Your task to perform on an android device: Open display settings Image 0: 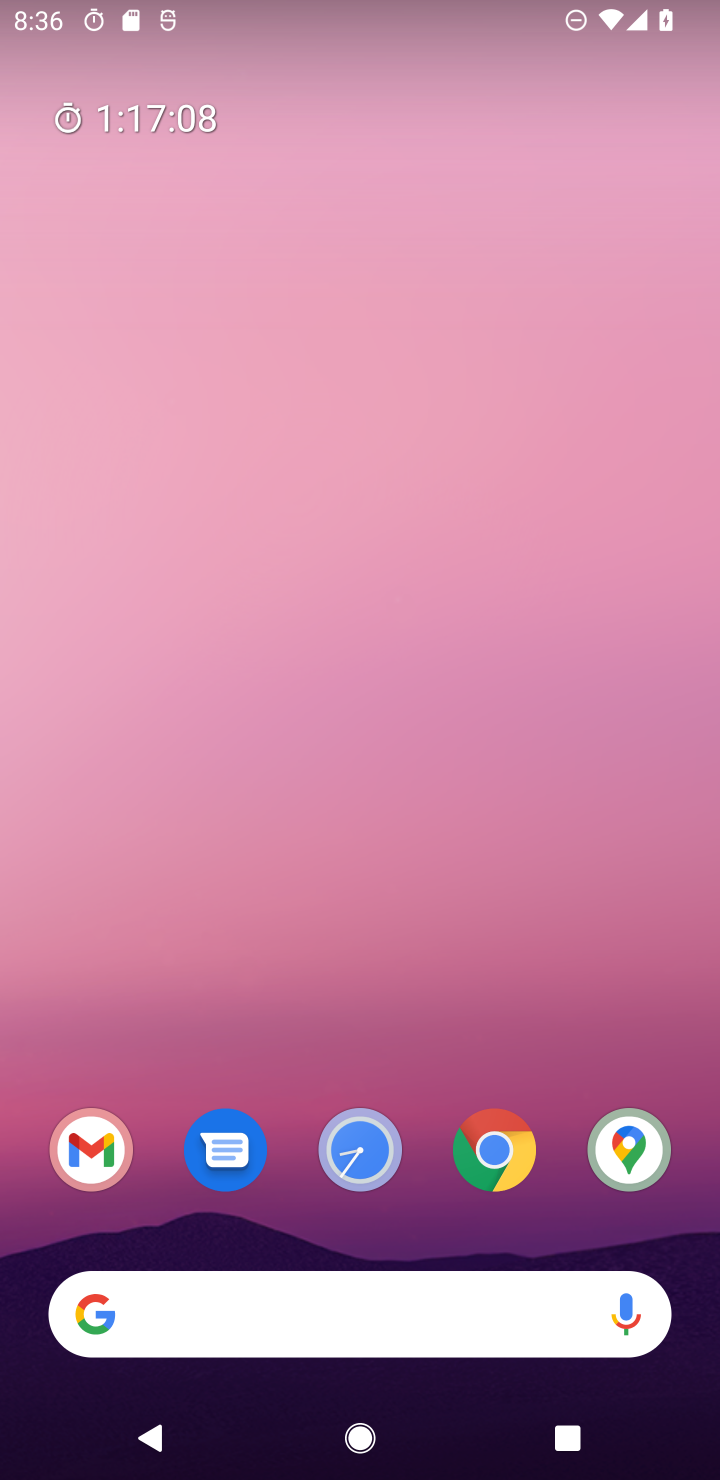
Step 0: drag from (383, 1187) to (546, 22)
Your task to perform on an android device: Open display settings Image 1: 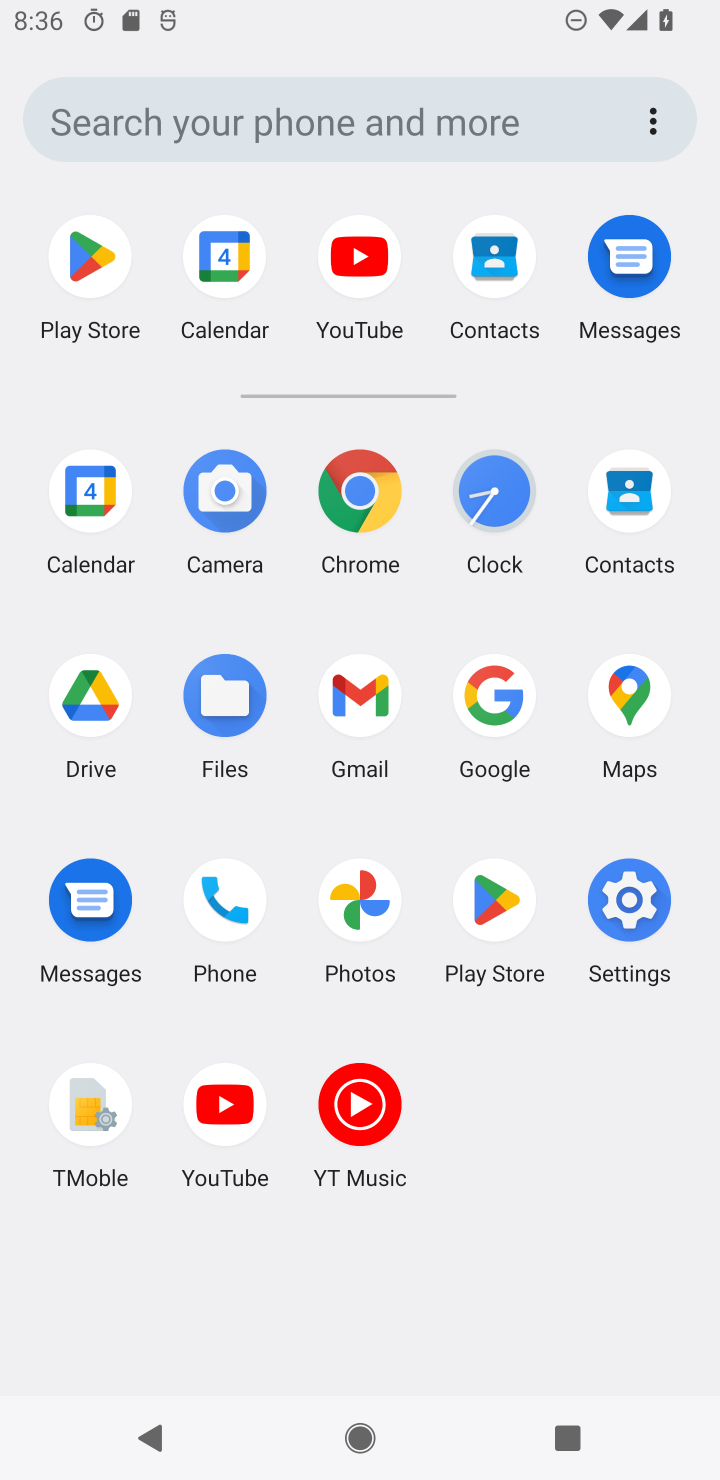
Step 1: click (612, 893)
Your task to perform on an android device: Open display settings Image 2: 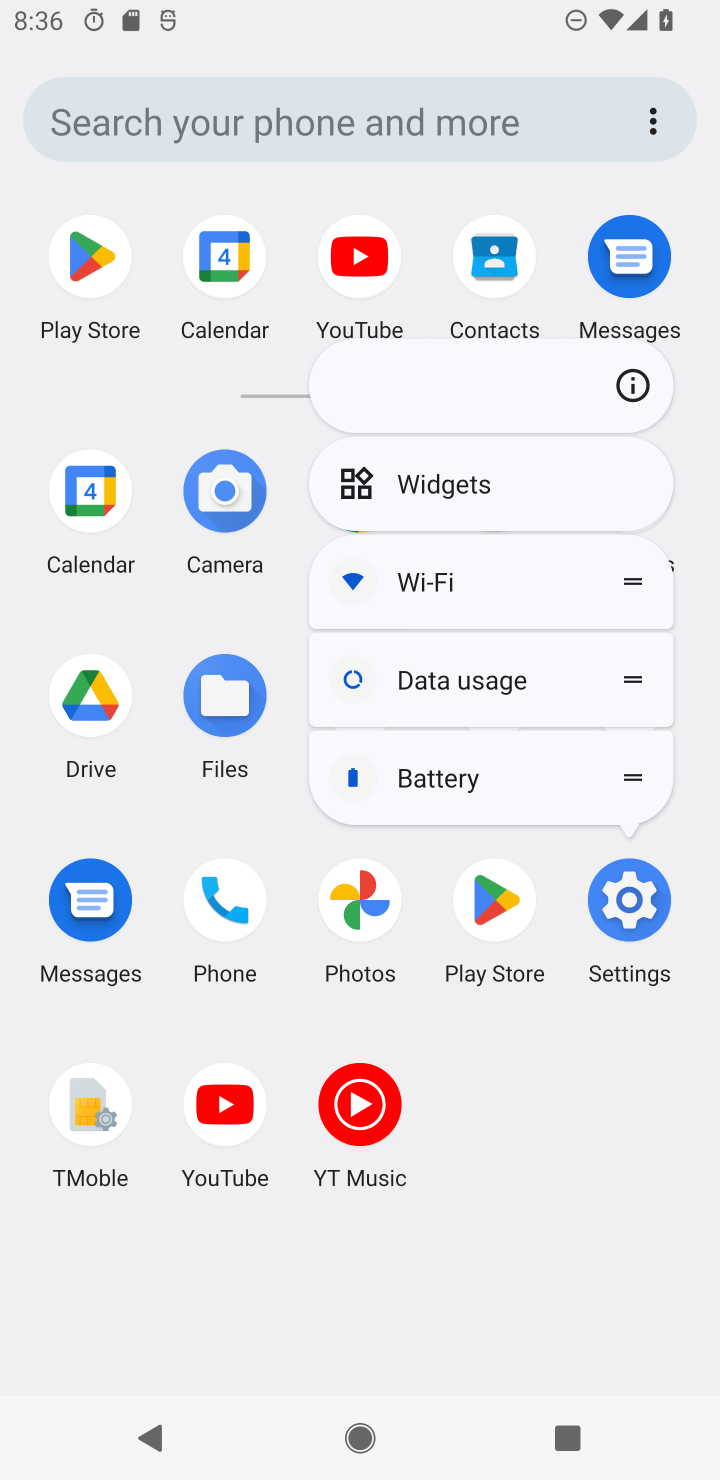
Step 2: click (612, 893)
Your task to perform on an android device: Open display settings Image 3: 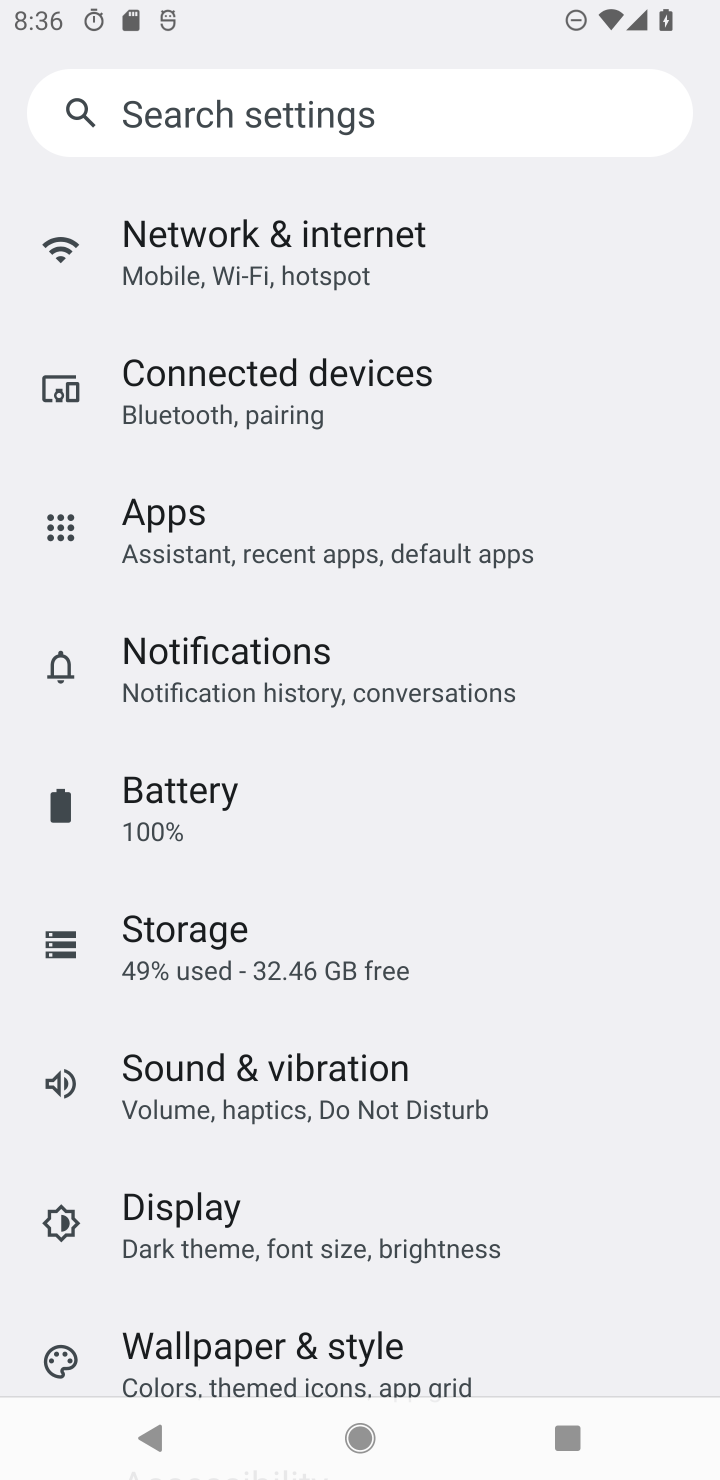
Step 3: drag from (229, 478) to (318, 135)
Your task to perform on an android device: Open display settings Image 4: 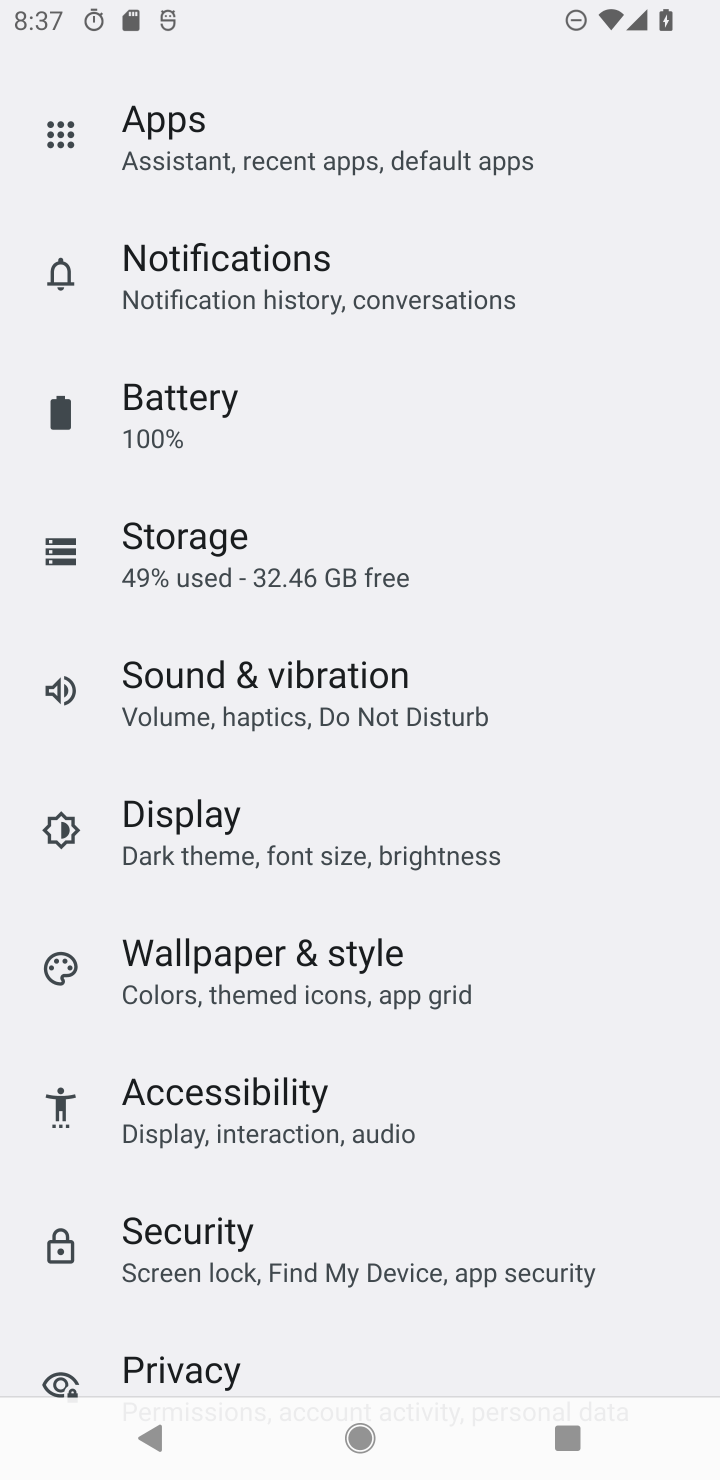
Step 4: drag from (255, 1331) to (321, 876)
Your task to perform on an android device: Open display settings Image 5: 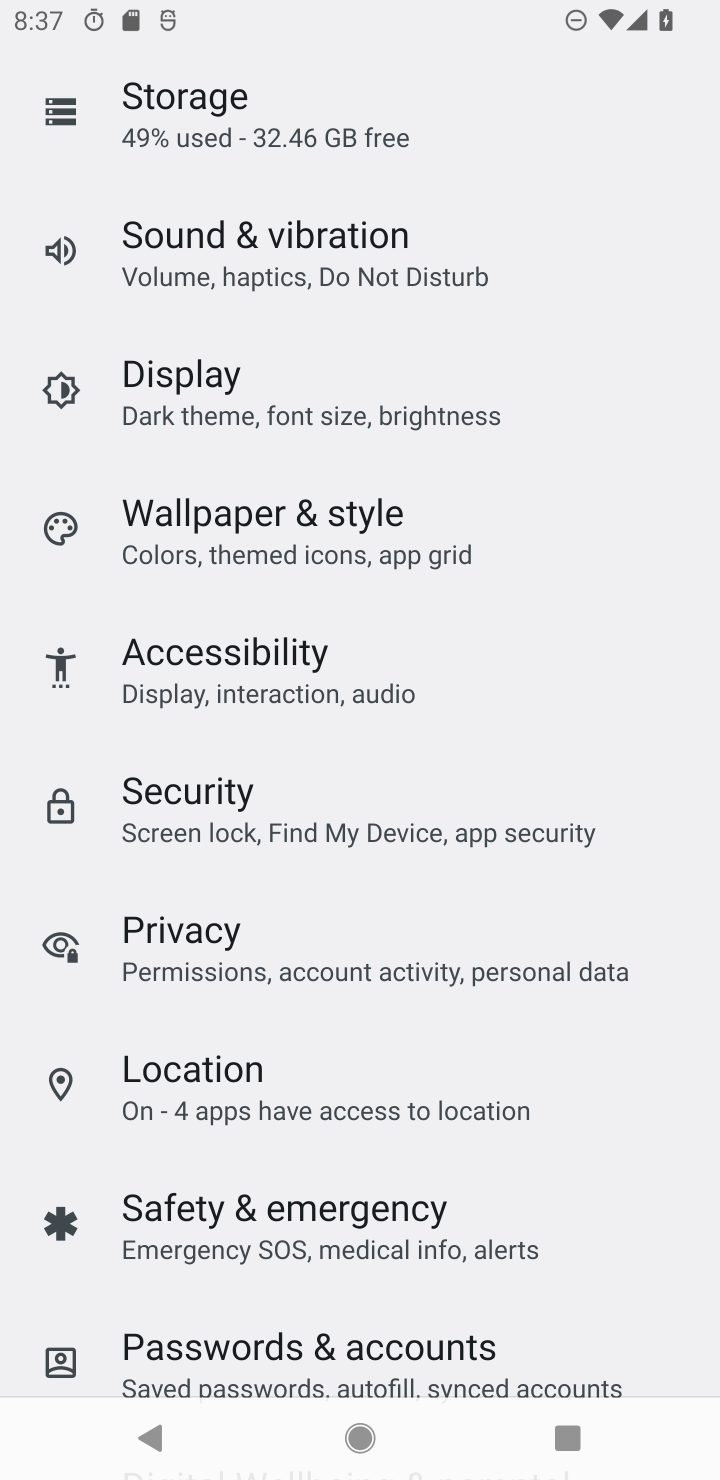
Step 5: click (281, 390)
Your task to perform on an android device: Open display settings Image 6: 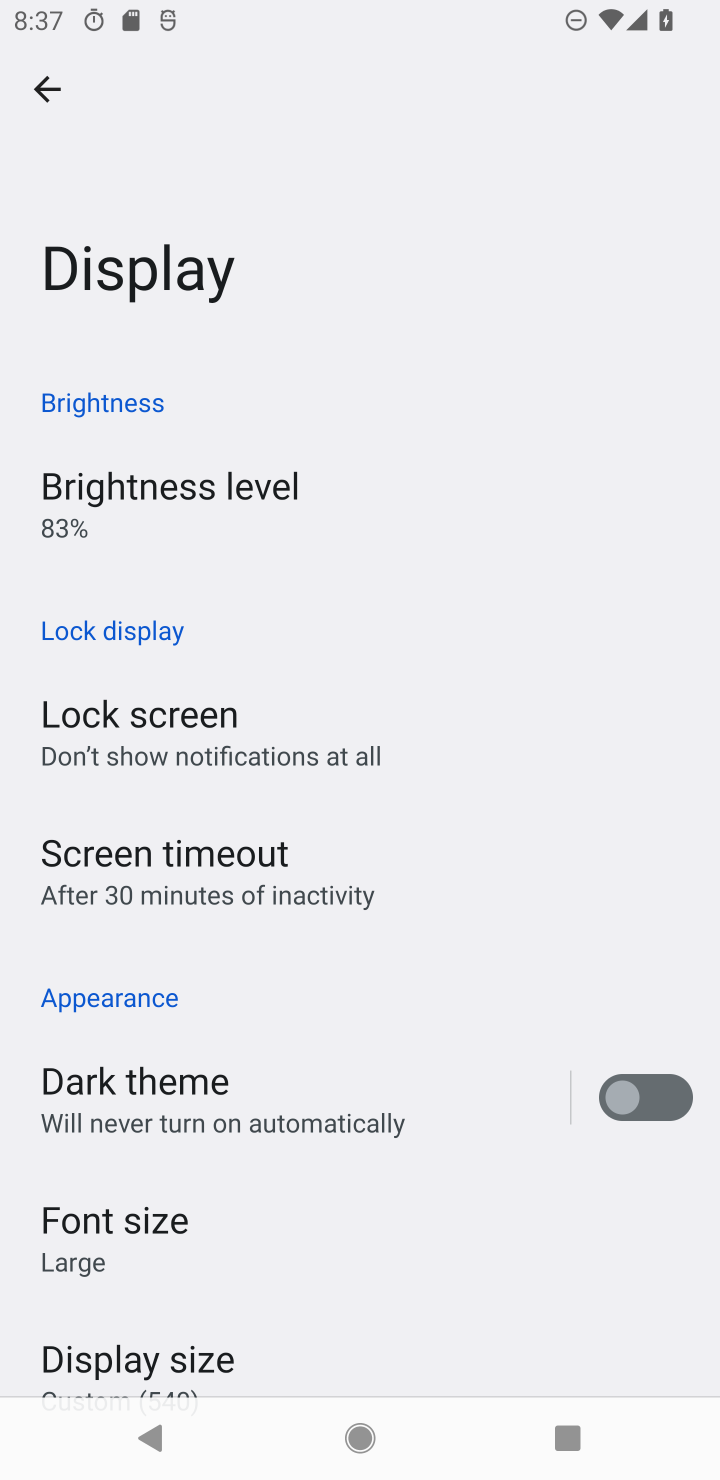
Step 6: task complete